Your task to perform on an android device: turn on the 24-hour format for clock Image 0: 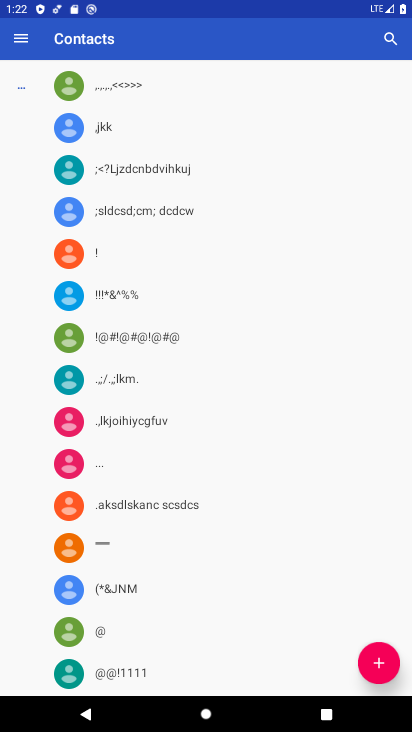
Step 0: press home button
Your task to perform on an android device: turn on the 24-hour format for clock Image 1: 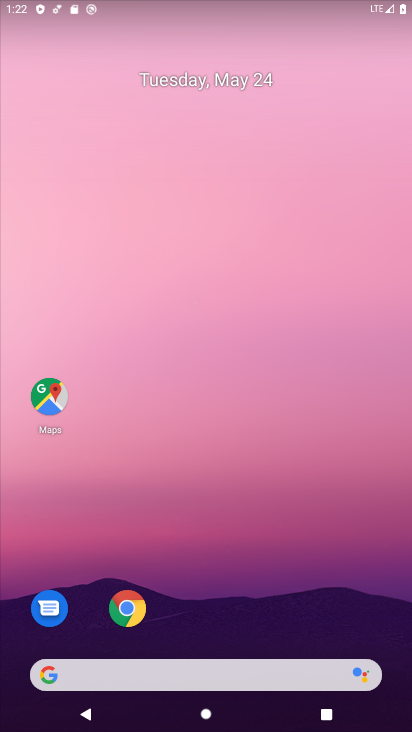
Step 1: drag from (290, 625) to (249, 201)
Your task to perform on an android device: turn on the 24-hour format for clock Image 2: 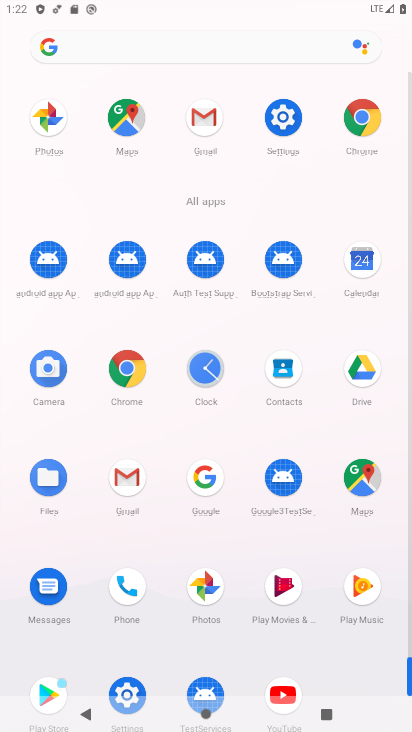
Step 2: click (197, 370)
Your task to perform on an android device: turn on the 24-hour format for clock Image 3: 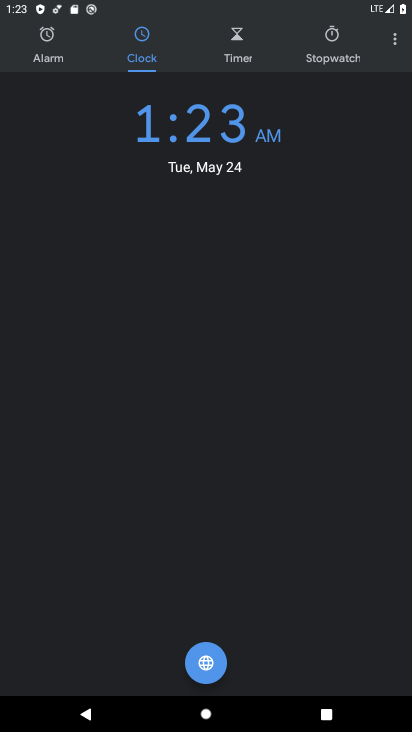
Step 3: click (396, 40)
Your task to perform on an android device: turn on the 24-hour format for clock Image 4: 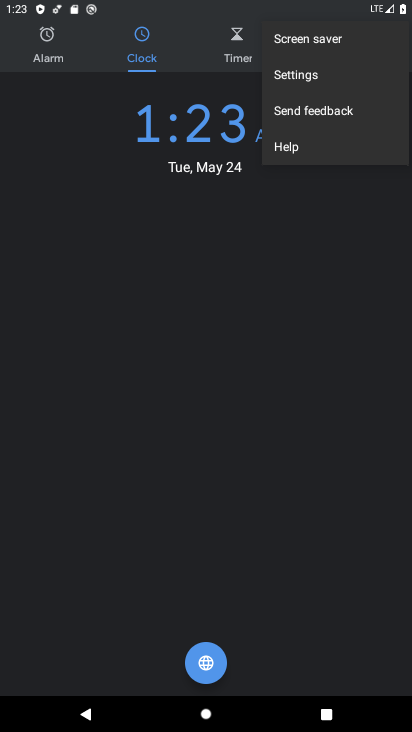
Step 4: click (362, 72)
Your task to perform on an android device: turn on the 24-hour format for clock Image 5: 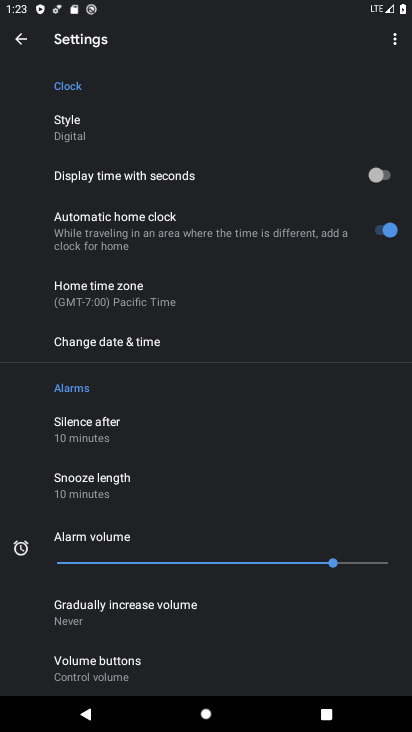
Step 5: click (314, 349)
Your task to perform on an android device: turn on the 24-hour format for clock Image 6: 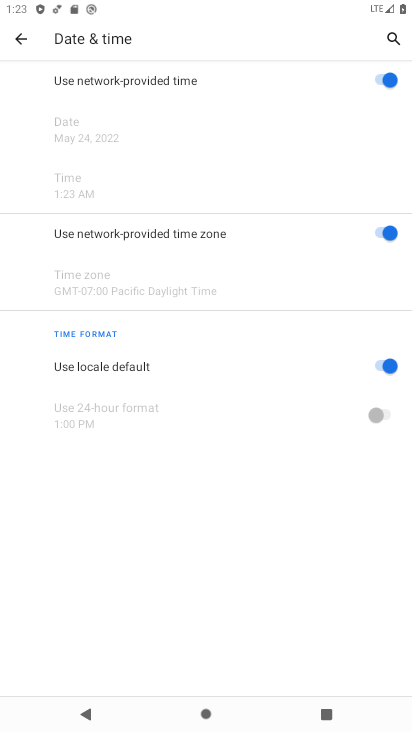
Step 6: click (394, 366)
Your task to perform on an android device: turn on the 24-hour format for clock Image 7: 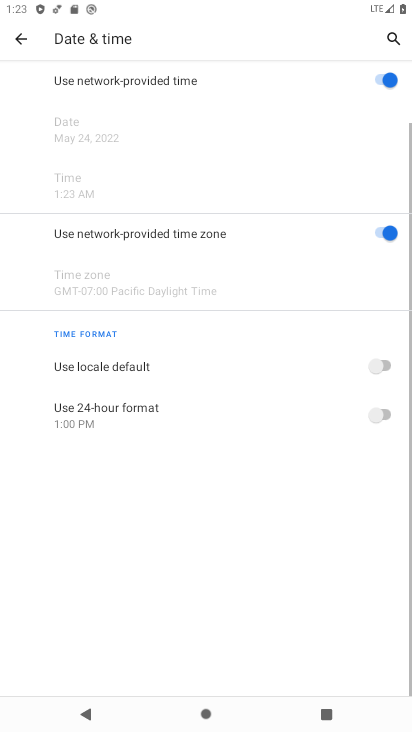
Step 7: click (390, 418)
Your task to perform on an android device: turn on the 24-hour format for clock Image 8: 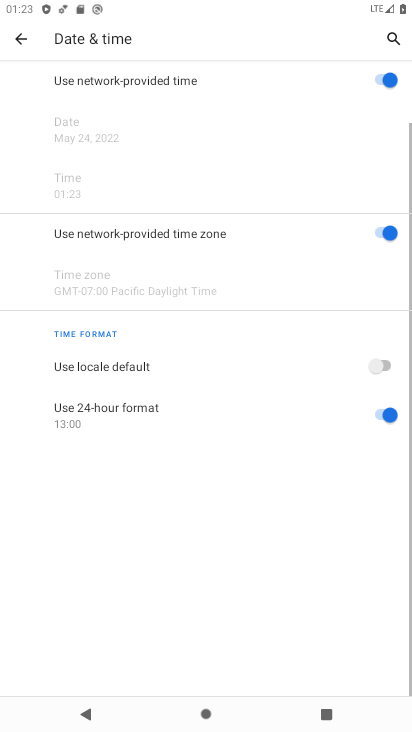
Step 8: task complete